Your task to perform on an android device: Is it going to rain this weekend? Image 0: 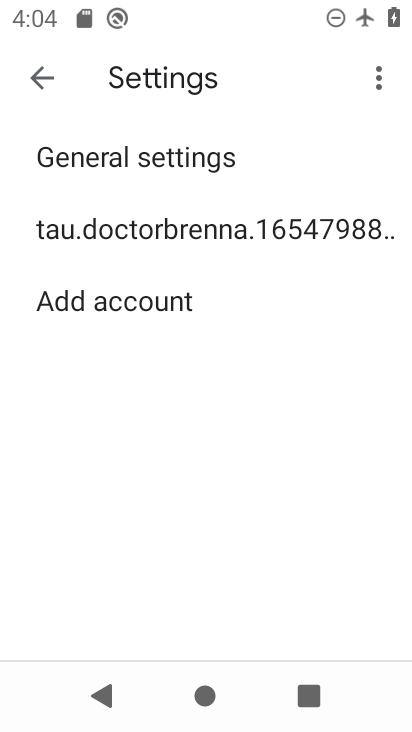
Step 0: press back button
Your task to perform on an android device: Is it going to rain this weekend? Image 1: 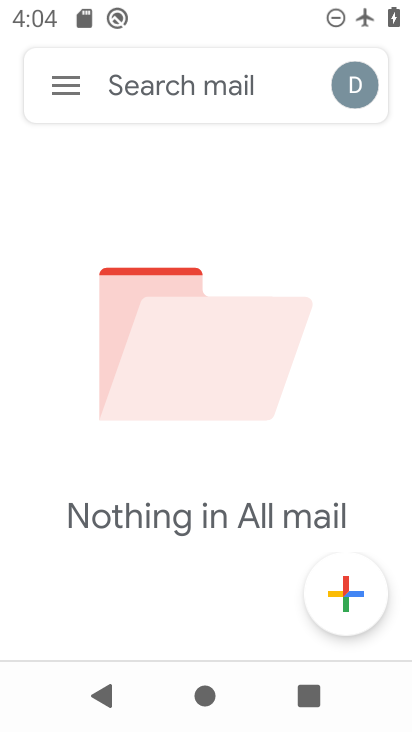
Step 1: press back button
Your task to perform on an android device: Is it going to rain this weekend? Image 2: 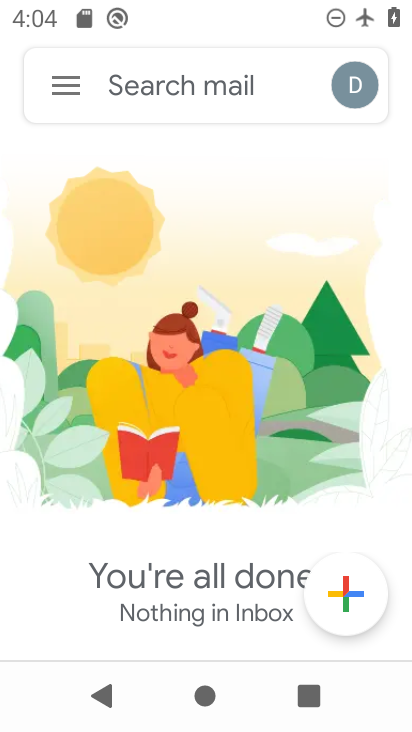
Step 2: press back button
Your task to perform on an android device: Is it going to rain this weekend? Image 3: 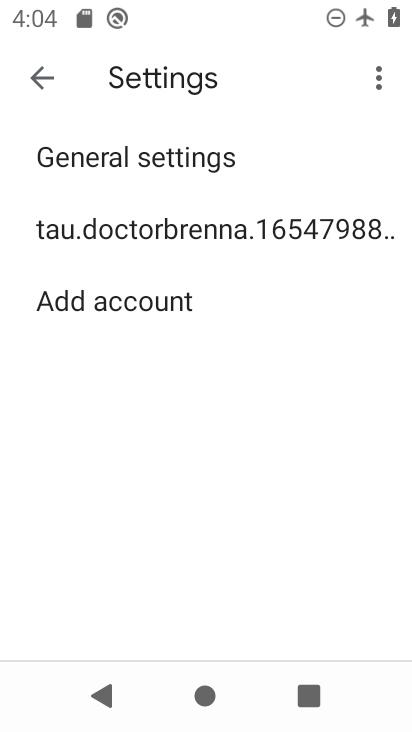
Step 3: press back button
Your task to perform on an android device: Is it going to rain this weekend? Image 4: 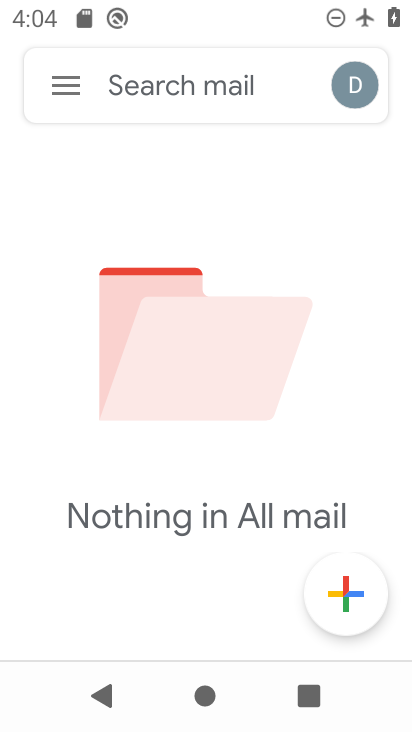
Step 4: press home button
Your task to perform on an android device: Is it going to rain this weekend? Image 5: 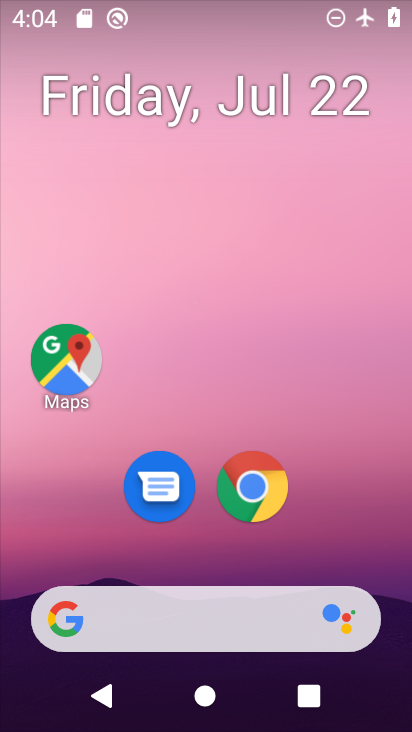
Step 5: drag from (79, 553) to (210, 13)
Your task to perform on an android device: Is it going to rain this weekend? Image 6: 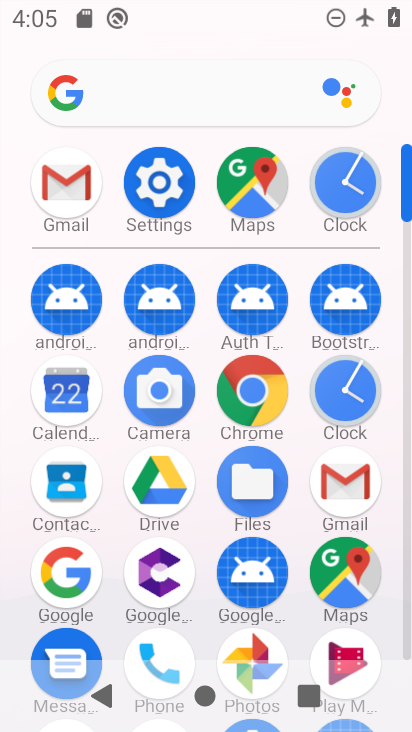
Step 6: click (63, 404)
Your task to perform on an android device: Is it going to rain this weekend? Image 7: 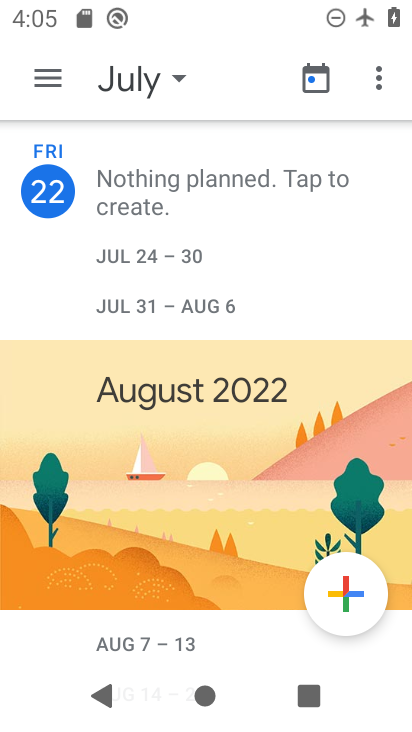
Step 7: press back button
Your task to perform on an android device: Is it going to rain this weekend? Image 8: 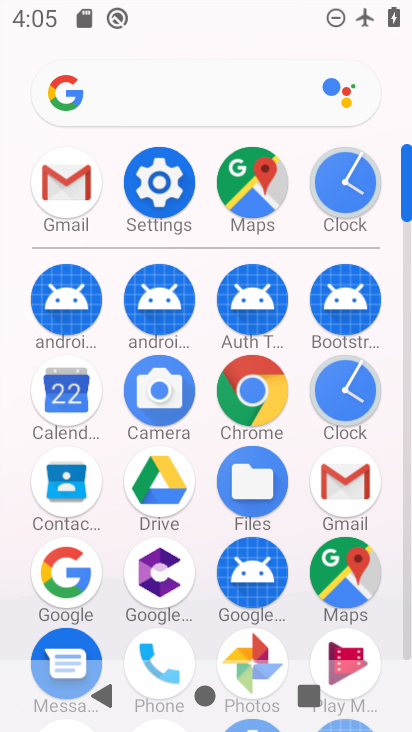
Step 8: click (186, 84)
Your task to perform on an android device: Is it going to rain this weekend? Image 9: 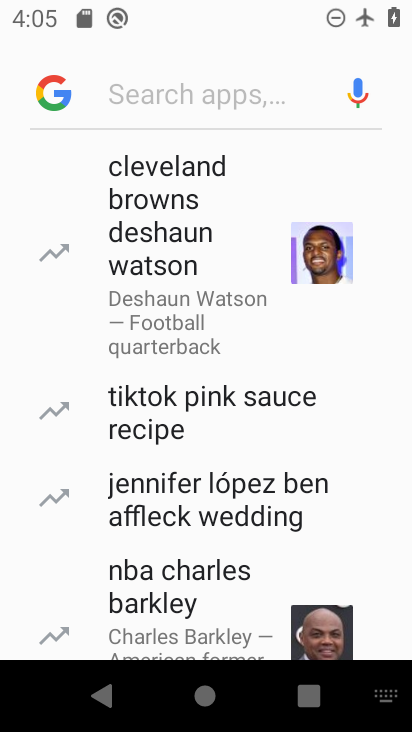
Step 9: type "weather"
Your task to perform on an android device: Is it going to rain this weekend? Image 10: 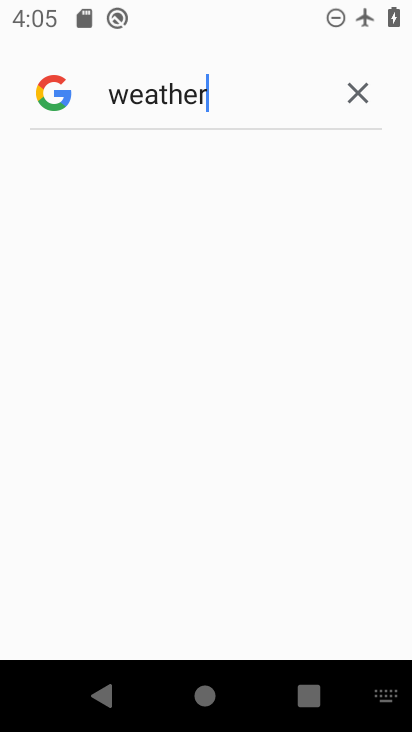
Step 10: drag from (362, 70) to (249, 644)
Your task to perform on an android device: Is it going to rain this weekend? Image 11: 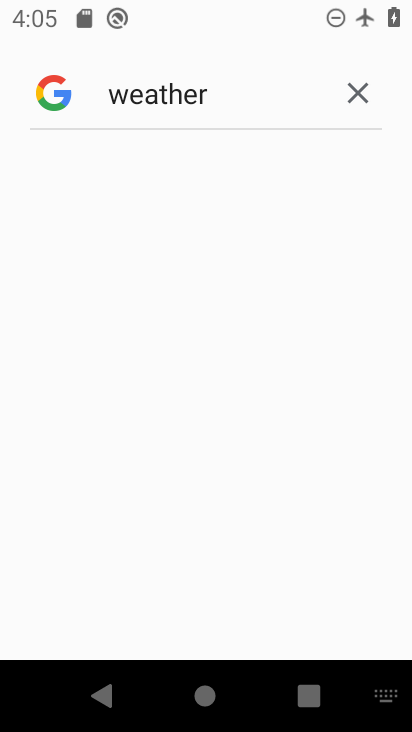
Step 11: drag from (283, 5) to (237, 559)
Your task to perform on an android device: Is it going to rain this weekend? Image 12: 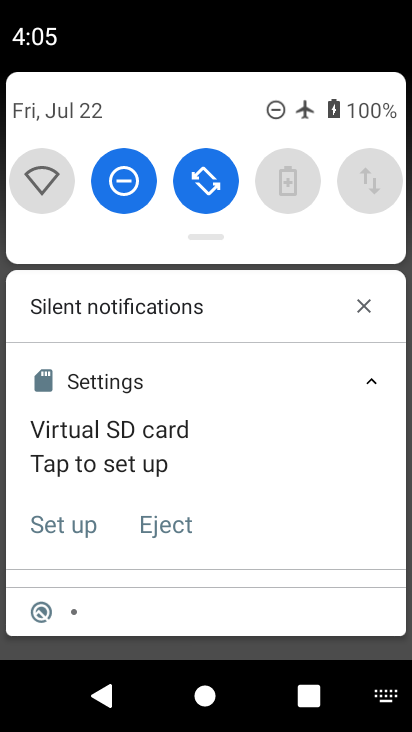
Step 12: drag from (213, 203) to (135, 718)
Your task to perform on an android device: Is it going to rain this weekend? Image 13: 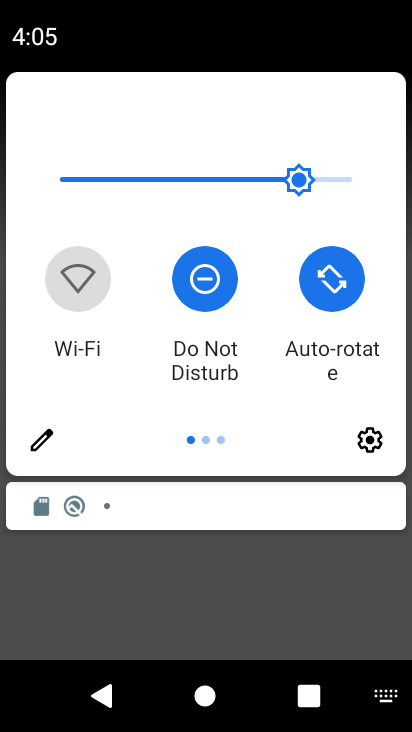
Step 13: drag from (358, 271) to (0, 286)
Your task to perform on an android device: Is it going to rain this weekend? Image 14: 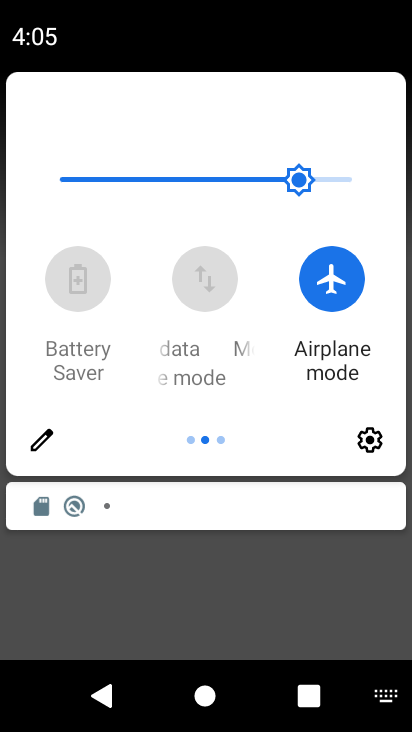
Step 14: click (317, 280)
Your task to perform on an android device: Is it going to rain this weekend? Image 15: 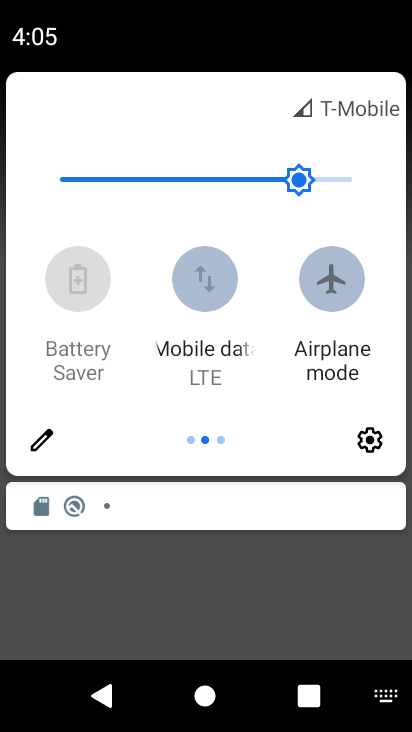
Step 15: click (166, 603)
Your task to perform on an android device: Is it going to rain this weekend? Image 16: 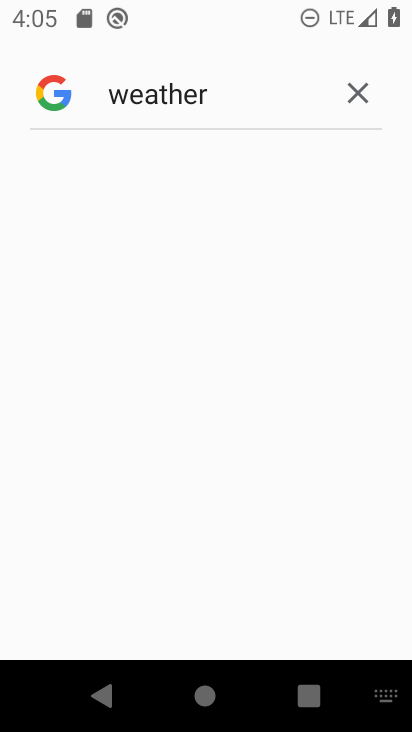
Step 16: click (268, 103)
Your task to perform on an android device: Is it going to rain this weekend? Image 17: 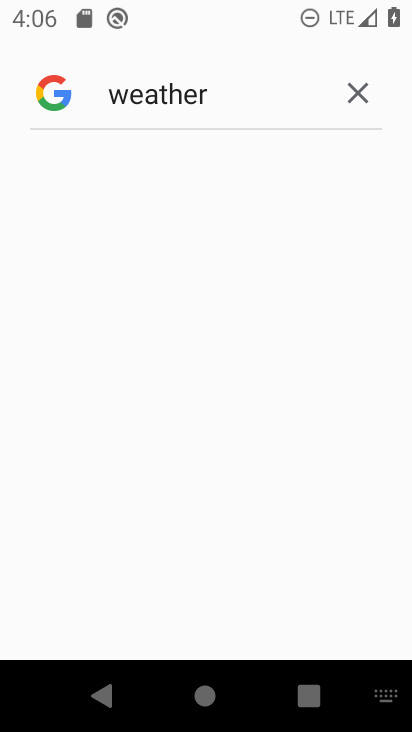
Step 17: click (359, 79)
Your task to perform on an android device: Is it going to rain this weekend? Image 18: 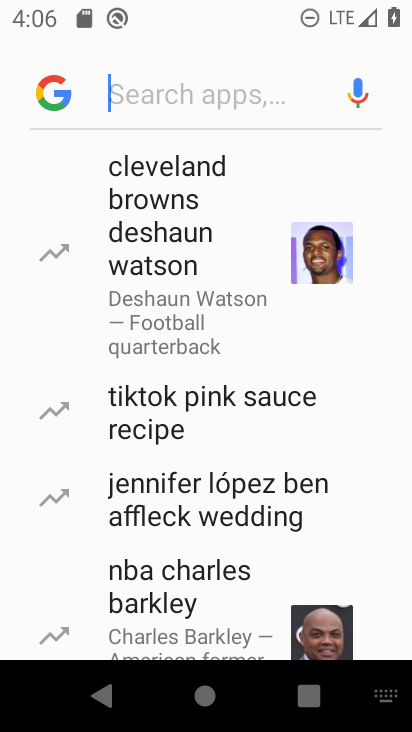
Step 18: click (175, 83)
Your task to perform on an android device: Is it going to rain this weekend? Image 19: 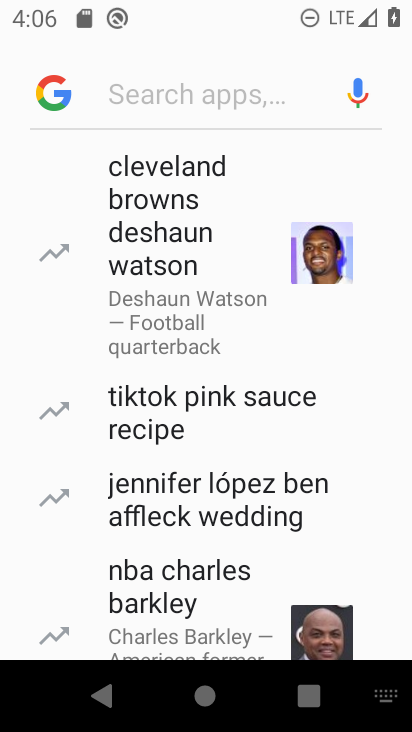
Step 19: type "weather"
Your task to perform on an android device: Is it going to rain this weekend? Image 20: 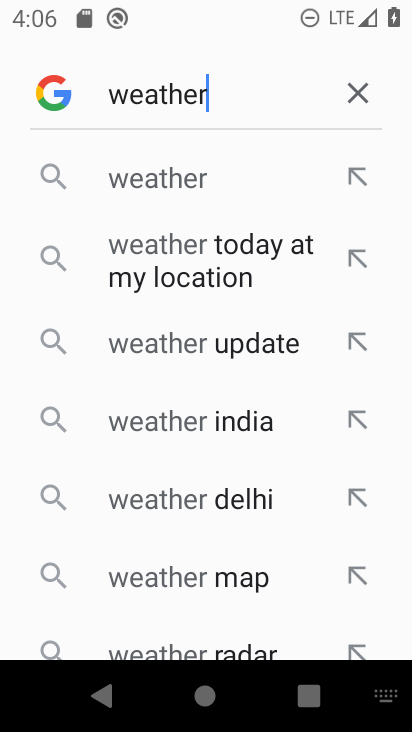
Step 20: click (192, 174)
Your task to perform on an android device: Is it going to rain this weekend? Image 21: 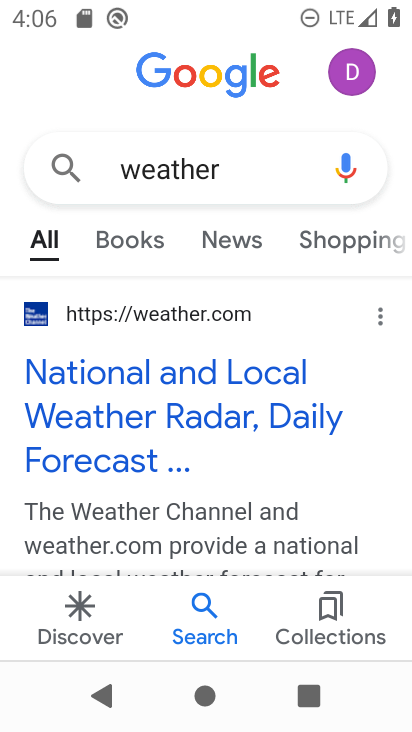
Step 21: click (145, 394)
Your task to perform on an android device: Is it going to rain this weekend? Image 22: 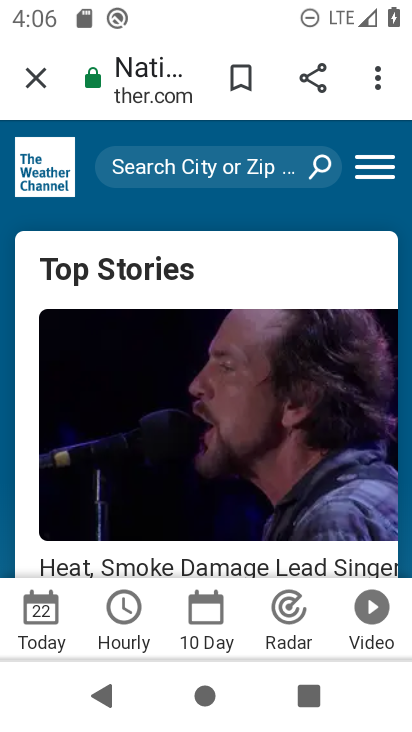
Step 22: click (219, 619)
Your task to perform on an android device: Is it going to rain this weekend? Image 23: 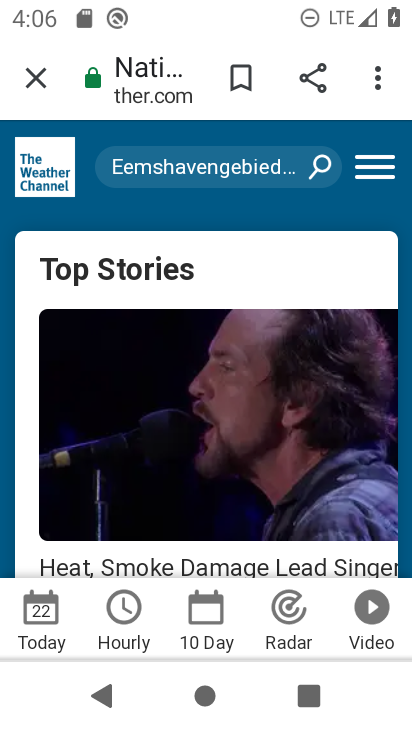
Step 23: drag from (220, 530) to (256, 727)
Your task to perform on an android device: Is it going to rain this weekend? Image 24: 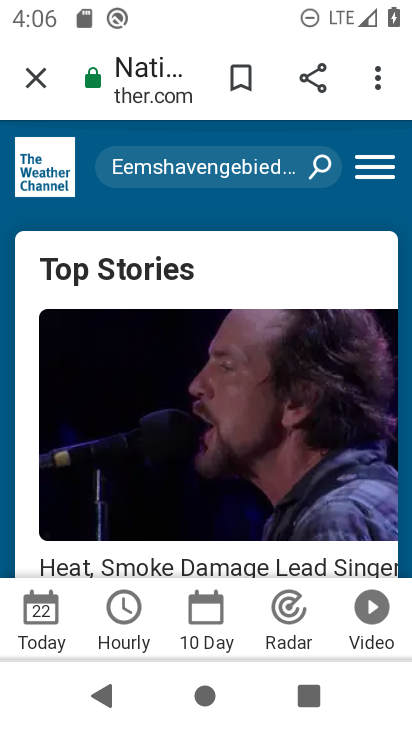
Step 24: click (205, 609)
Your task to perform on an android device: Is it going to rain this weekend? Image 25: 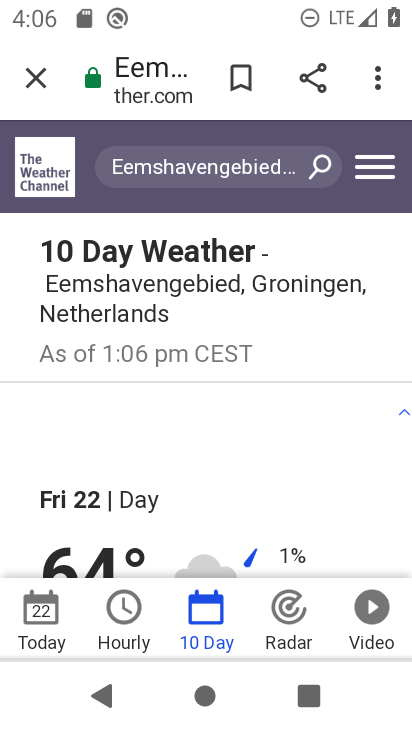
Step 25: task complete